Your task to perform on an android device: toggle notification dots Image 0: 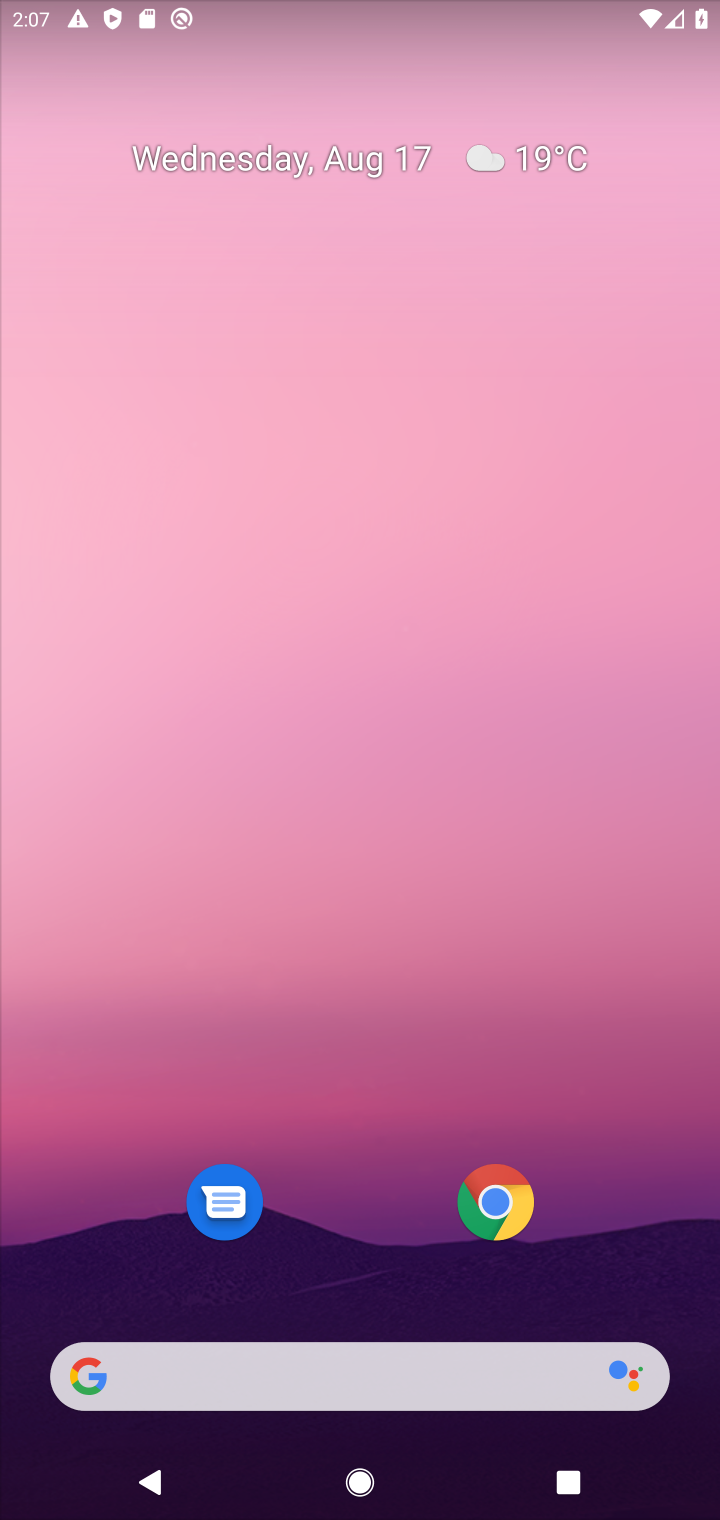
Step 0: drag from (321, 163) to (287, 39)
Your task to perform on an android device: toggle notification dots Image 1: 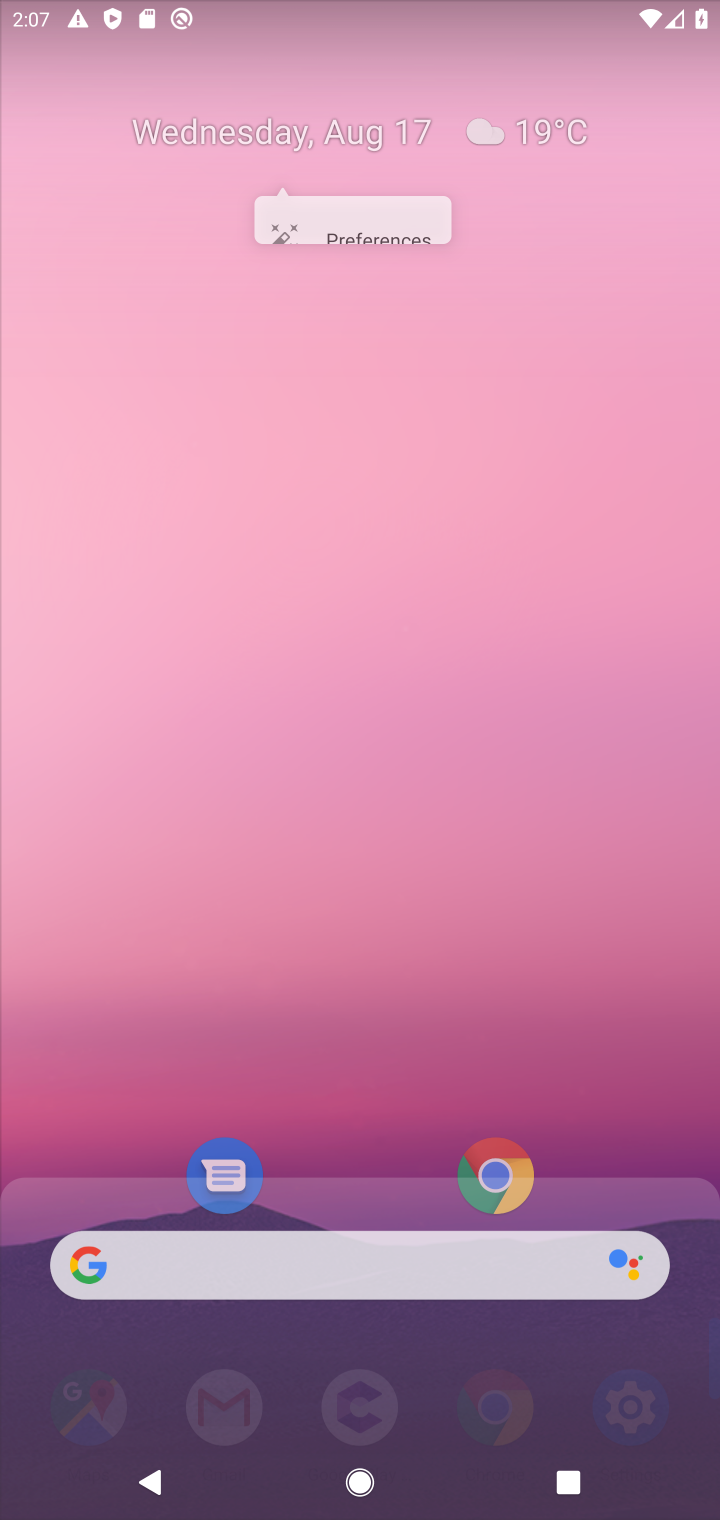
Step 1: drag from (256, 803) to (313, 157)
Your task to perform on an android device: toggle notification dots Image 2: 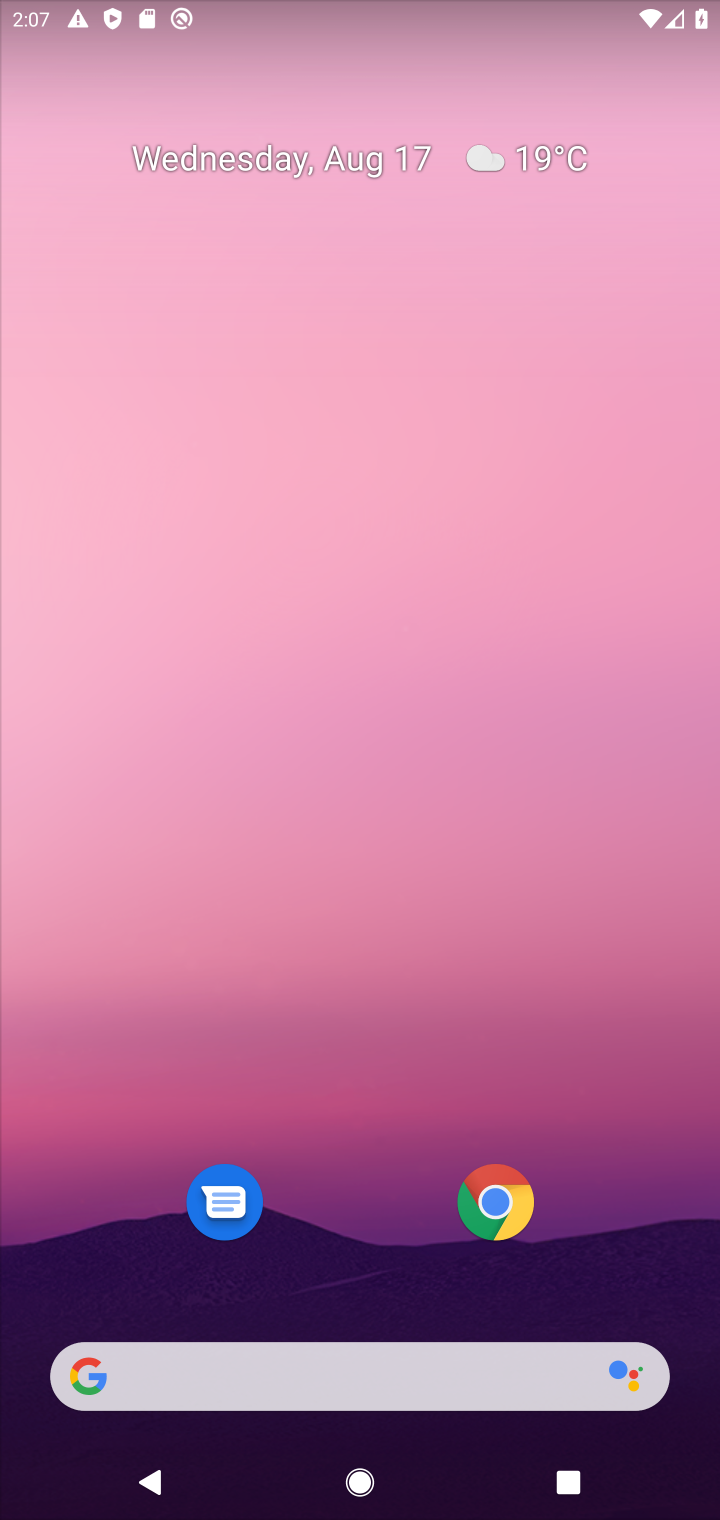
Step 2: drag from (461, 1270) to (575, 225)
Your task to perform on an android device: toggle notification dots Image 3: 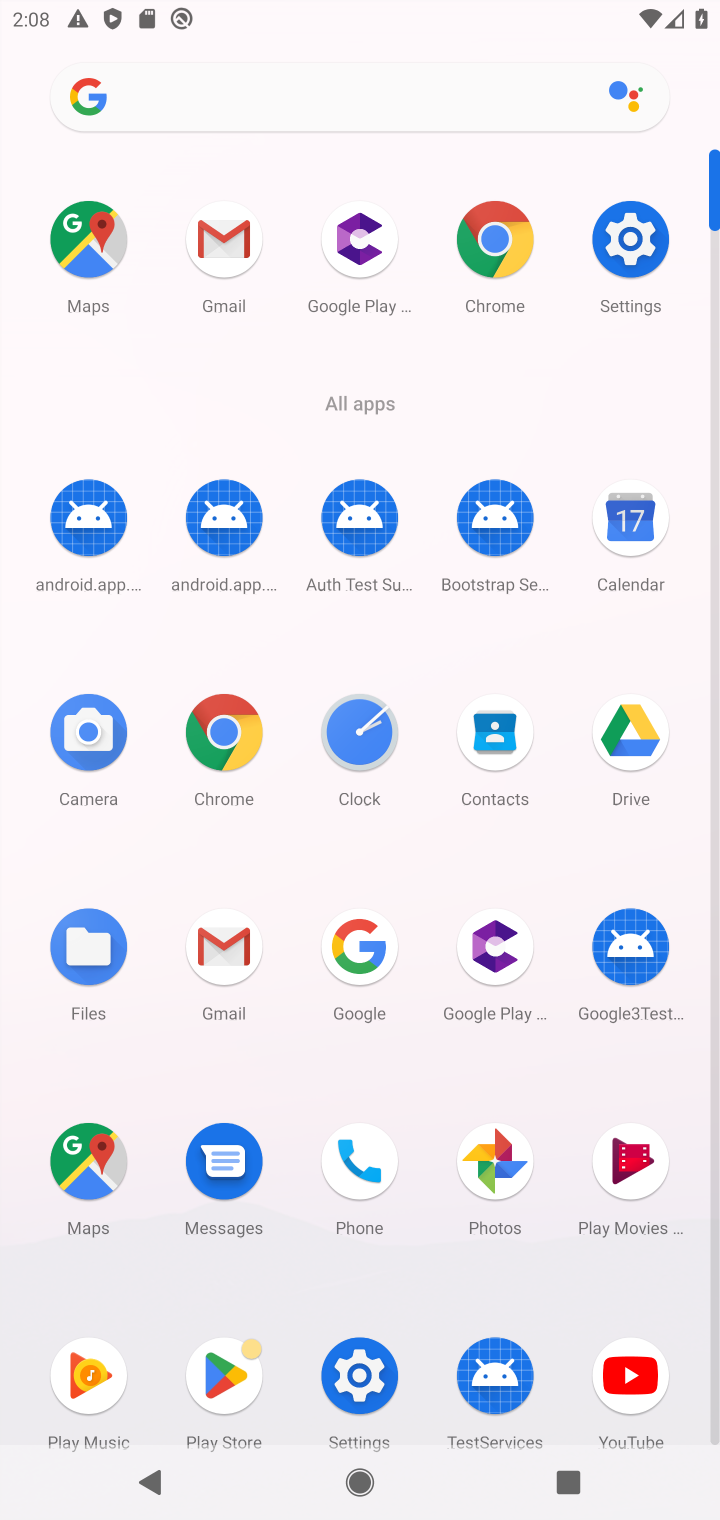
Step 3: click (636, 261)
Your task to perform on an android device: toggle notification dots Image 4: 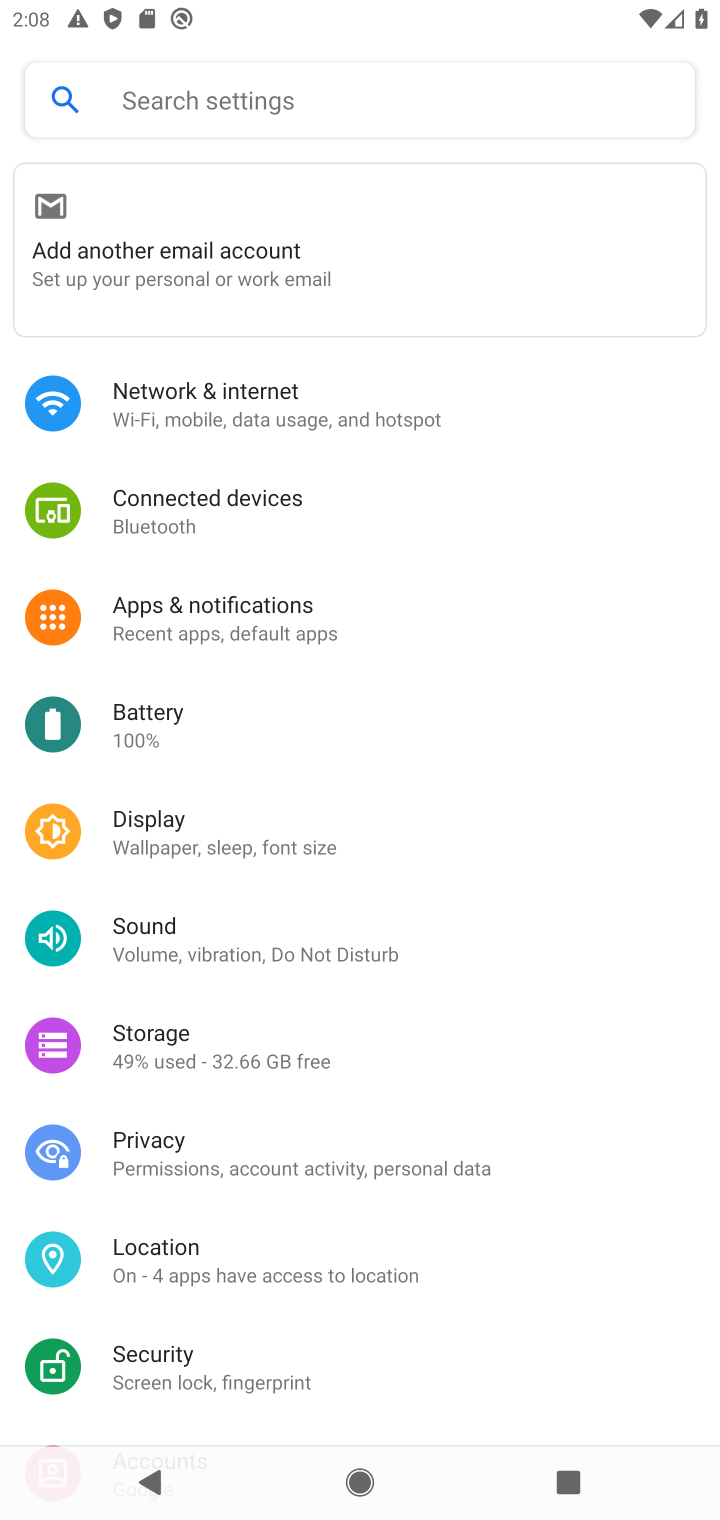
Step 4: click (235, 606)
Your task to perform on an android device: toggle notification dots Image 5: 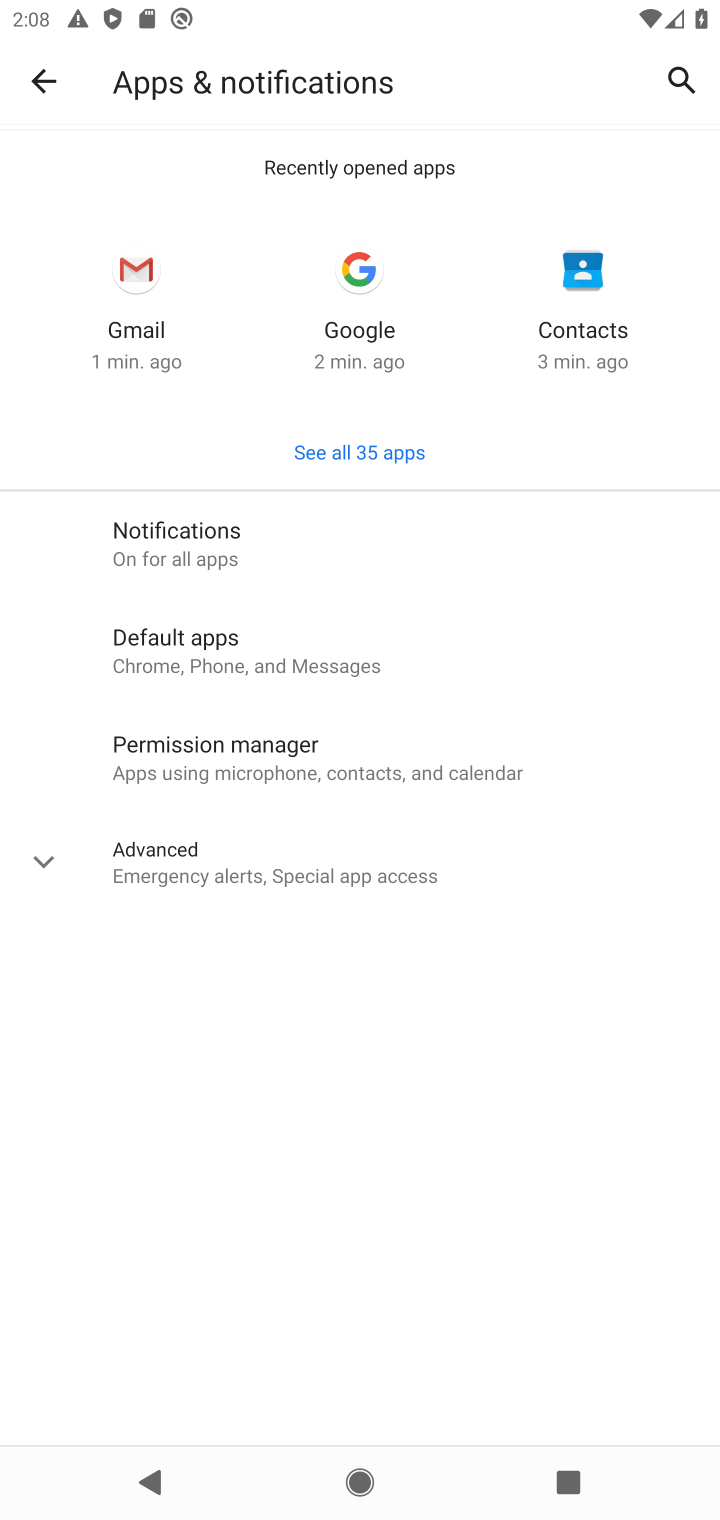
Step 5: click (208, 535)
Your task to perform on an android device: toggle notification dots Image 6: 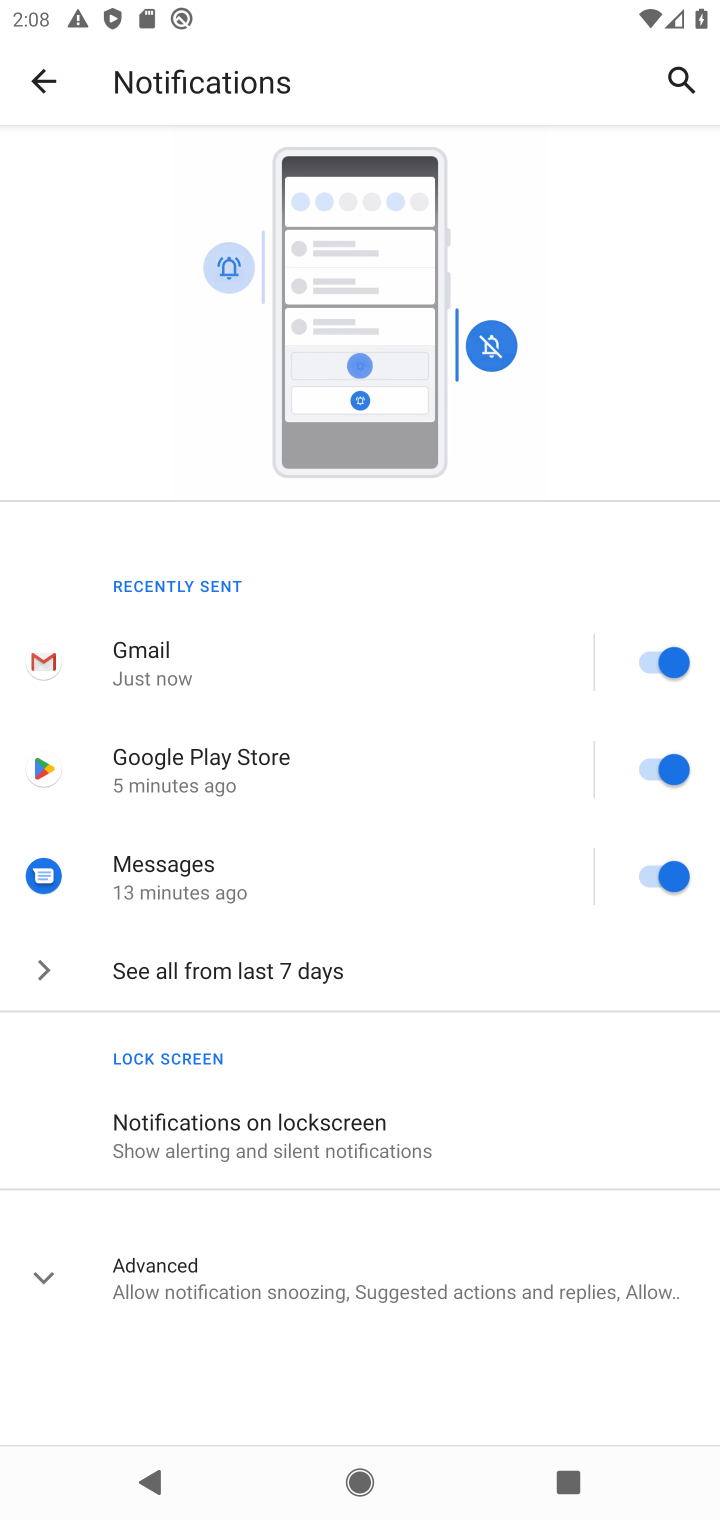
Step 6: click (189, 1276)
Your task to perform on an android device: toggle notification dots Image 7: 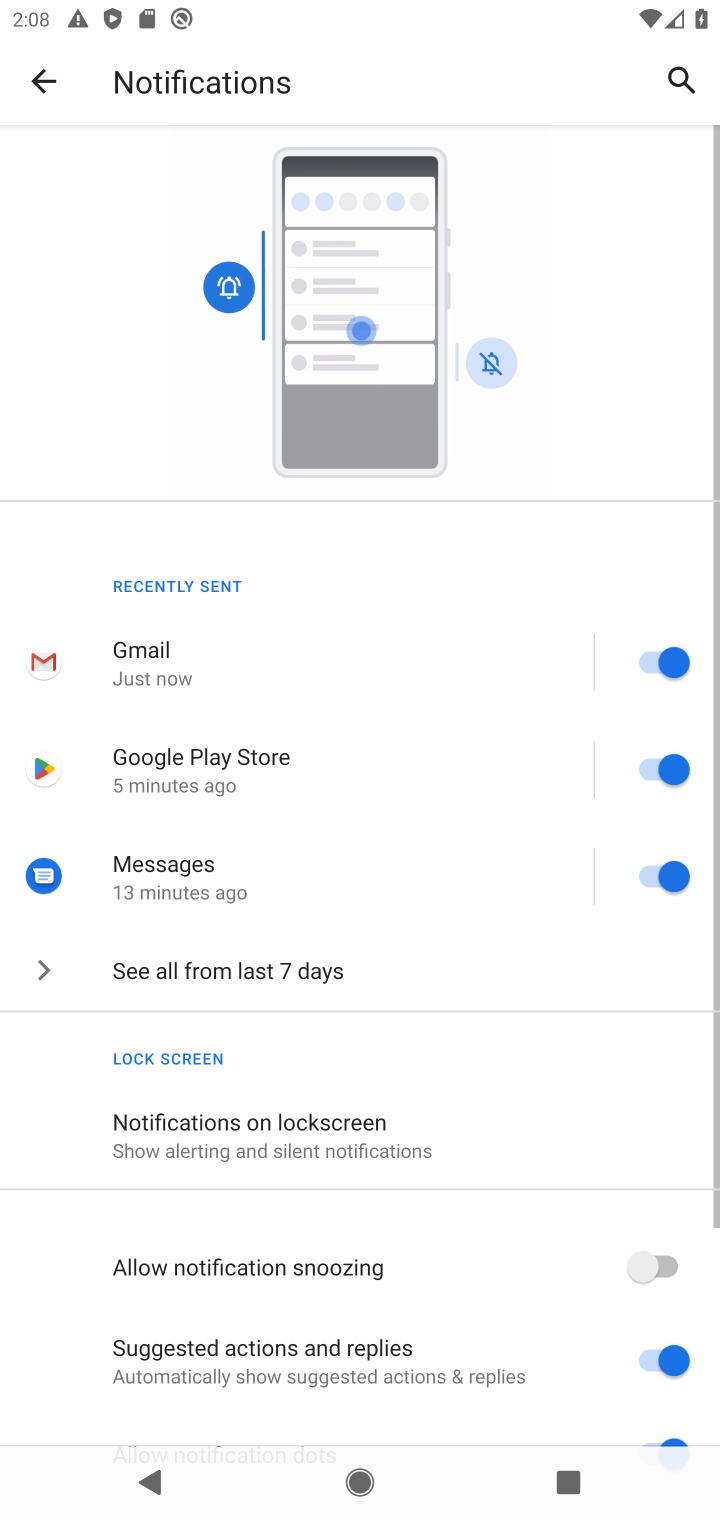
Step 7: drag from (196, 1030) to (247, 504)
Your task to perform on an android device: toggle notification dots Image 8: 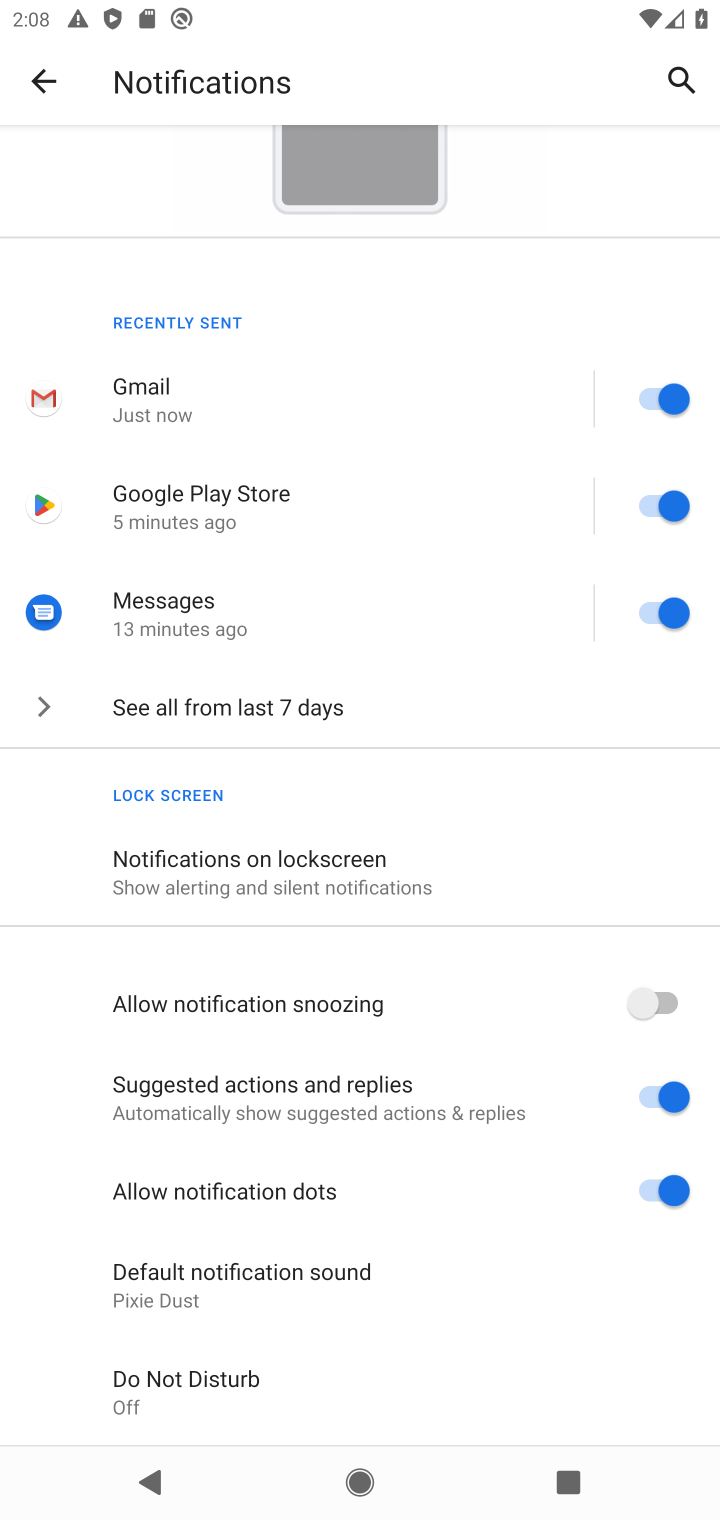
Step 8: click (651, 1179)
Your task to perform on an android device: toggle notification dots Image 9: 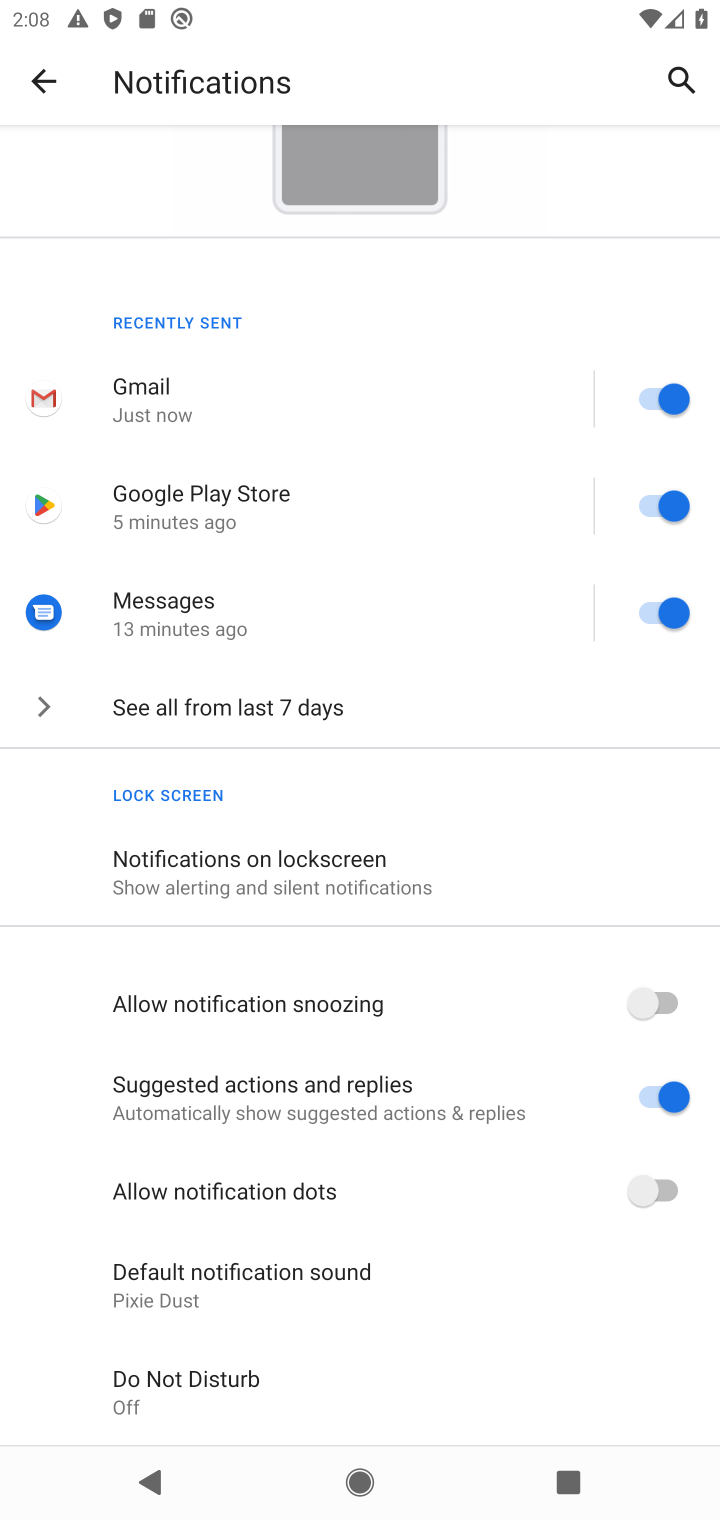
Step 9: task complete